Your task to perform on an android device: open the mobile data screen to see how much data has been used Image 0: 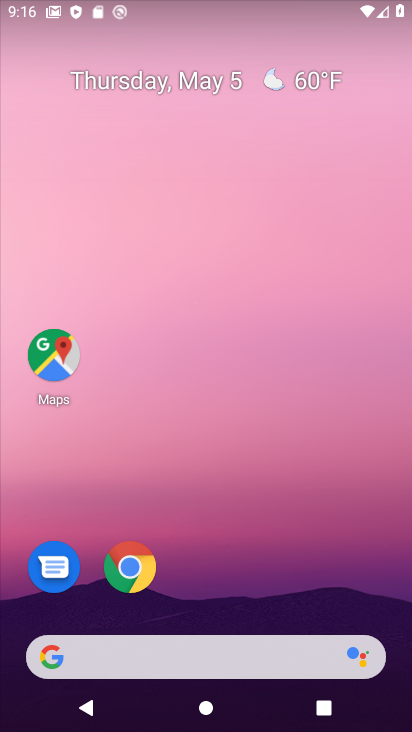
Step 0: drag from (212, 609) to (230, 156)
Your task to perform on an android device: open the mobile data screen to see how much data has been used Image 1: 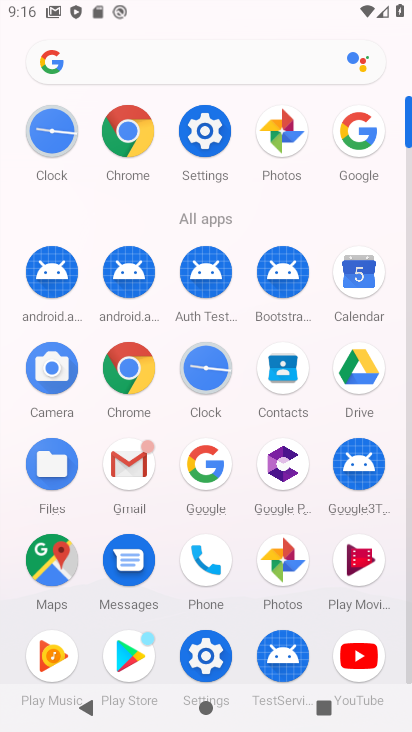
Step 1: click (197, 137)
Your task to perform on an android device: open the mobile data screen to see how much data has been used Image 2: 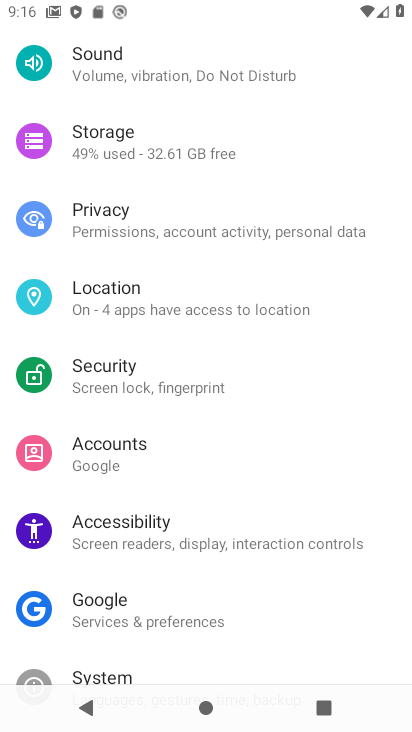
Step 2: drag from (234, 148) to (229, 574)
Your task to perform on an android device: open the mobile data screen to see how much data has been used Image 3: 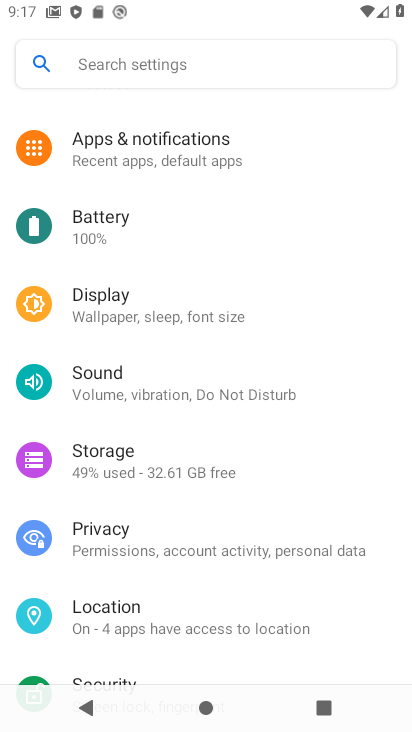
Step 3: drag from (159, 226) to (164, 598)
Your task to perform on an android device: open the mobile data screen to see how much data has been used Image 4: 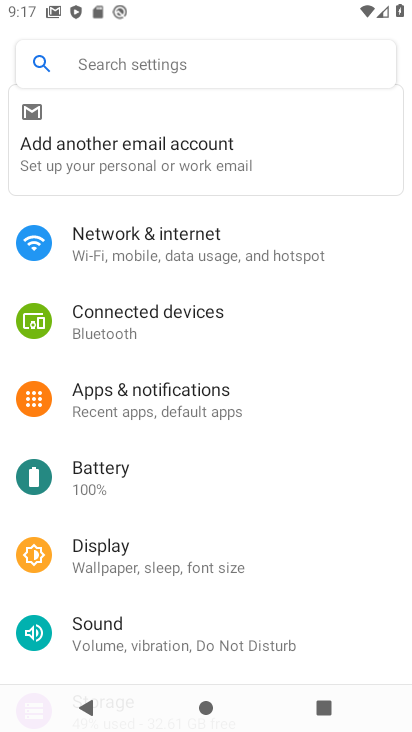
Step 4: click (150, 260)
Your task to perform on an android device: open the mobile data screen to see how much data has been used Image 5: 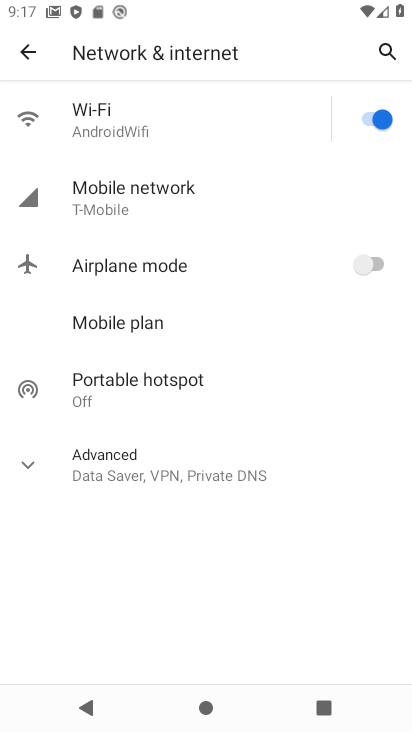
Step 5: click (169, 207)
Your task to perform on an android device: open the mobile data screen to see how much data has been used Image 6: 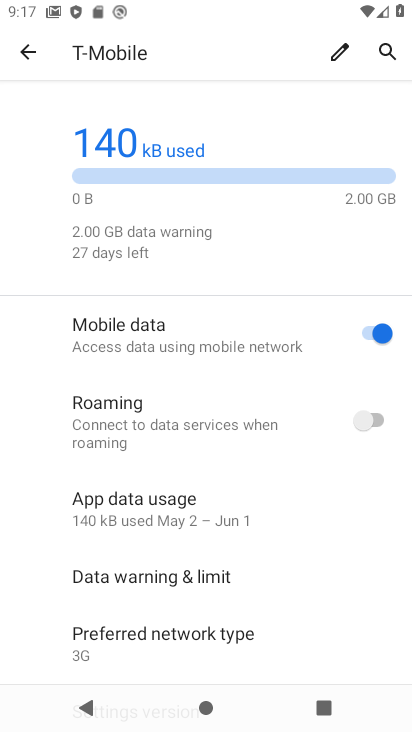
Step 6: click (157, 510)
Your task to perform on an android device: open the mobile data screen to see how much data has been used Image 7: 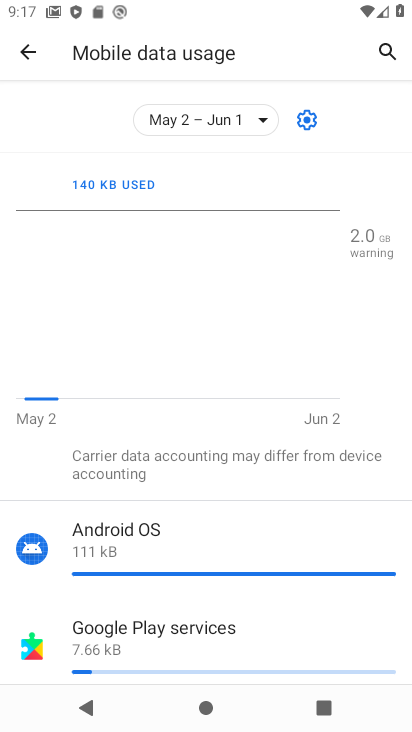
Step 7: task complete